Your task to perform on an android device: uninstall "Flipkart Online Shopping App" Image 0: 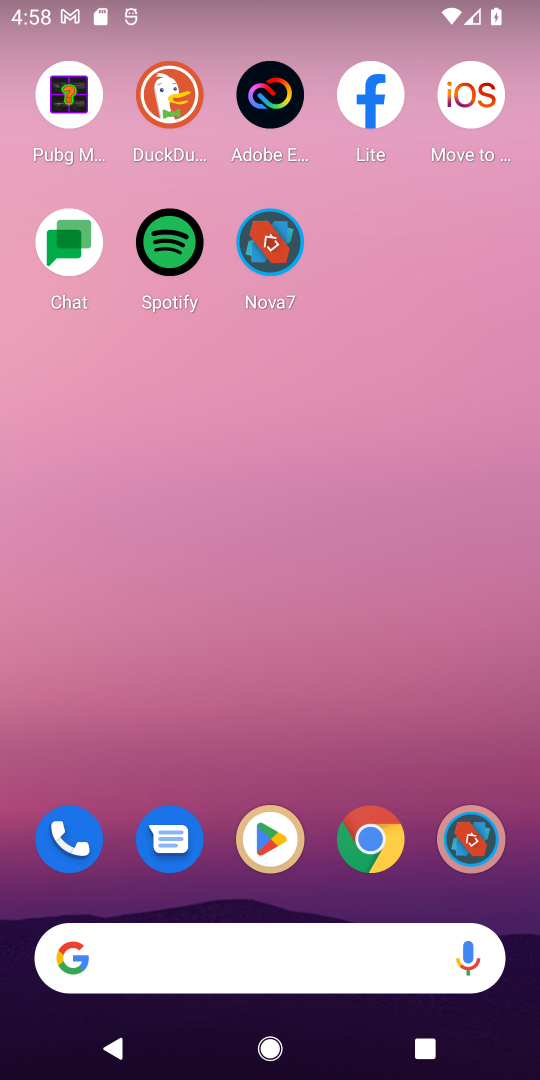
Step 0: press home button
Your task to perform on an android device: uninstall "Flipkart Online Shopping App" Image 1: 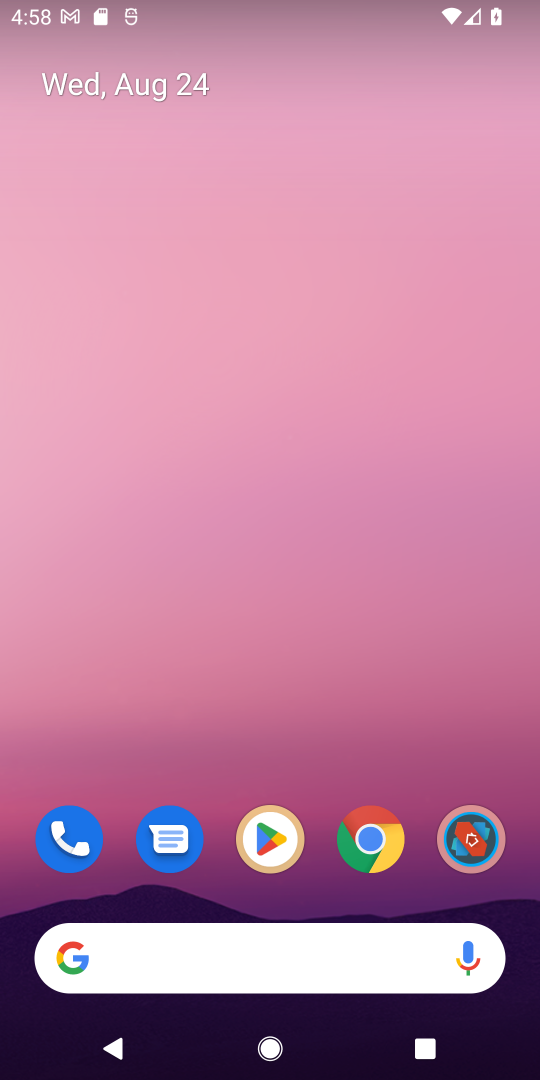
Step 1: click (274, 834)
Your task to perform on an android device: uninstall "Flipkart Online Shopping App" Image 2: 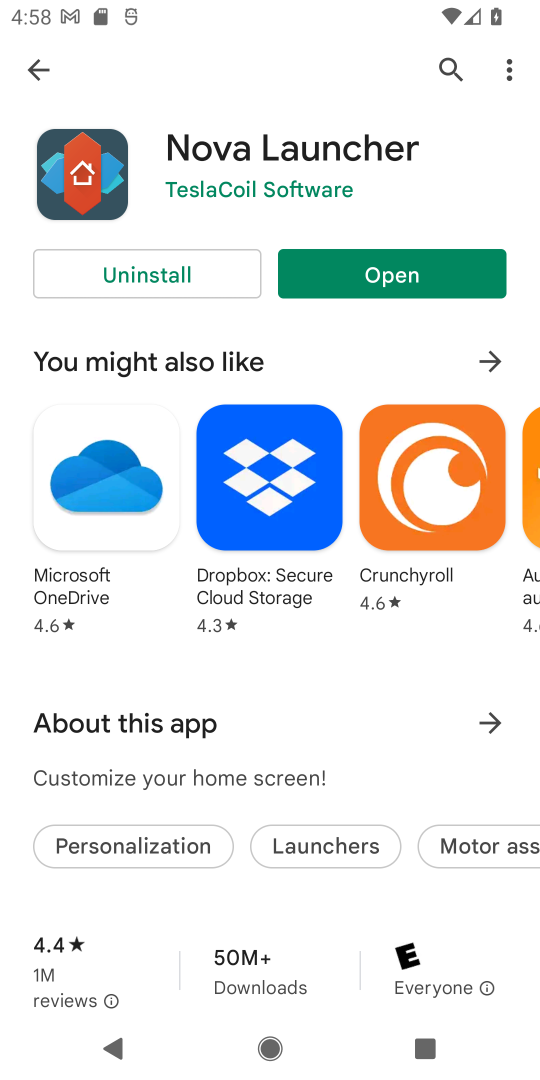
Step 2: click (449, 73)
Your task to perform on an android device: uninstall "Flipkart Online Shopping App" Image 3: 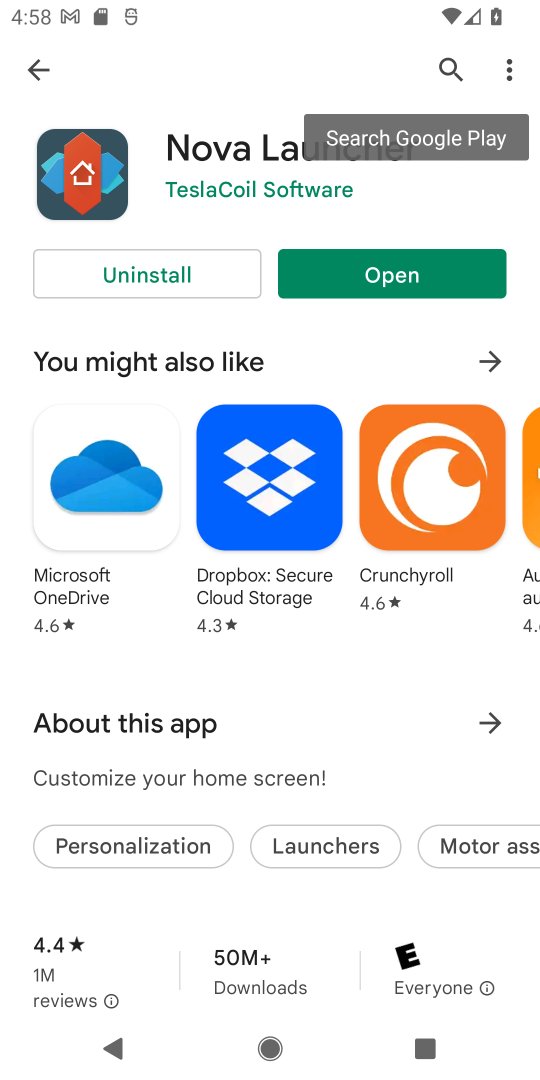
Step 3: click (448, 66)
Your task to perform on an android device: uninstall "Flipkart Online Shopping App" Image 4: 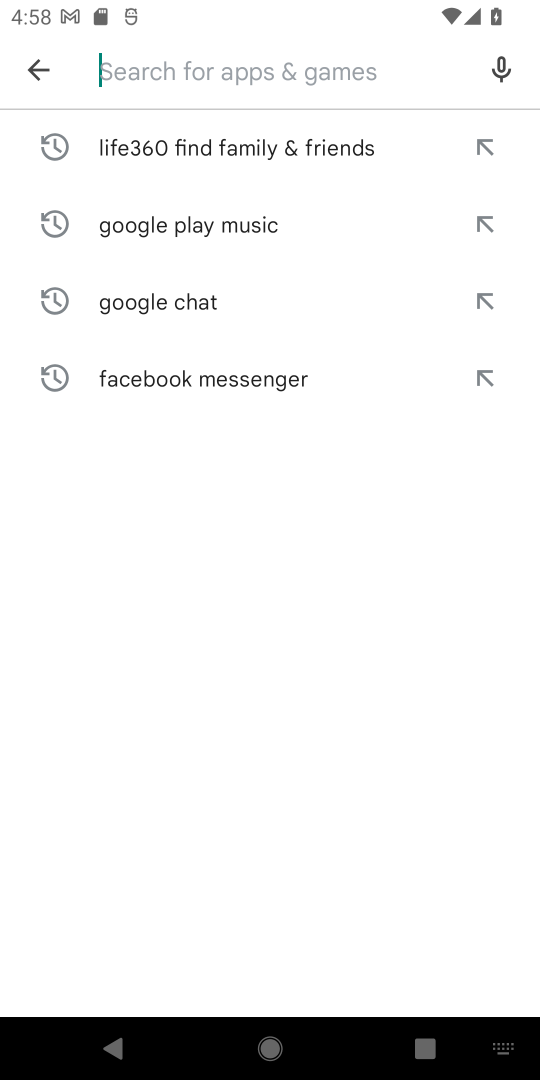
Step 4: type "Flipkart Online Shopping App"
Your task to perform on an android device: uninstall "Flipkart Online Shopping App" Image 5: 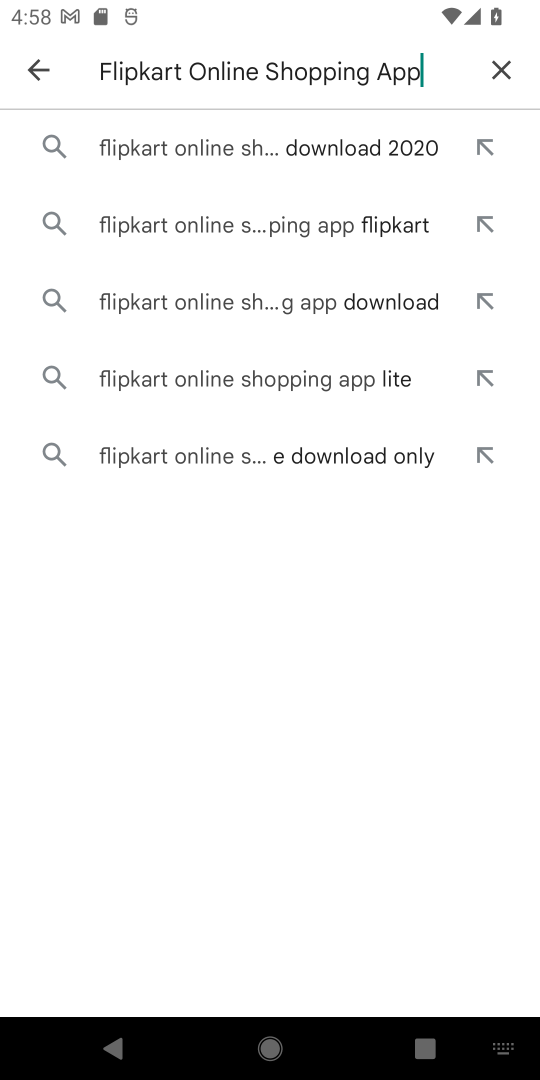
Step 5: click (156, 150)
Your task to perform on an android device: uninstall "Flipkart Online Shopping App" Image 6: 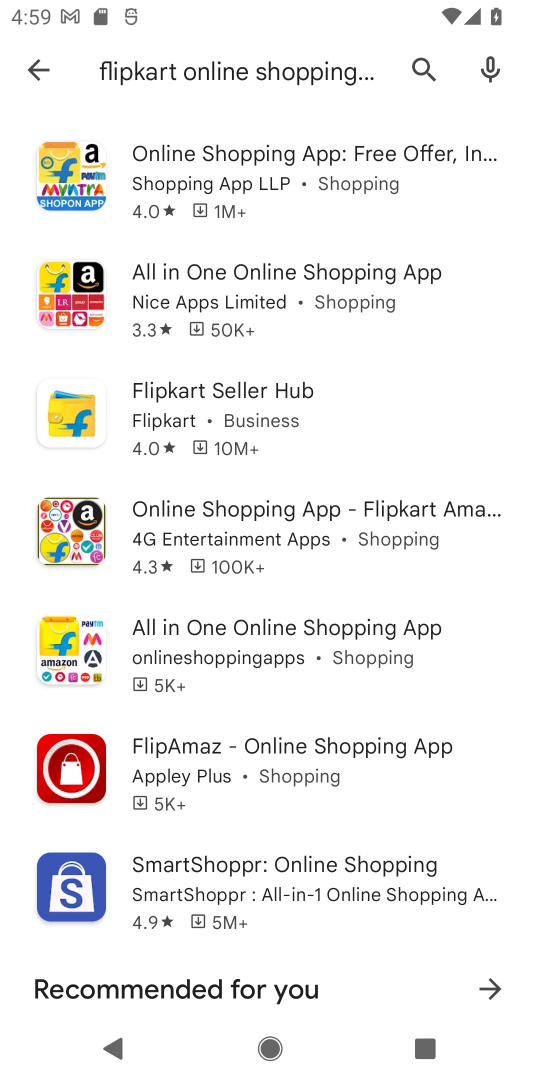
Step 6: task complete